Your task to perform on an android device: Open the phone app and click the voicemail tab. Image 0: 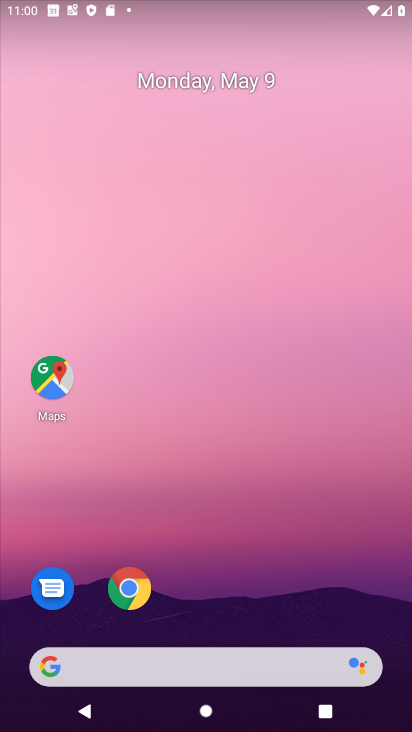
Step 0: drag from (222, 652) to (188, 0)
Your task to perform on an android device: Open the phone app and click the voicemail tab. Image 1: 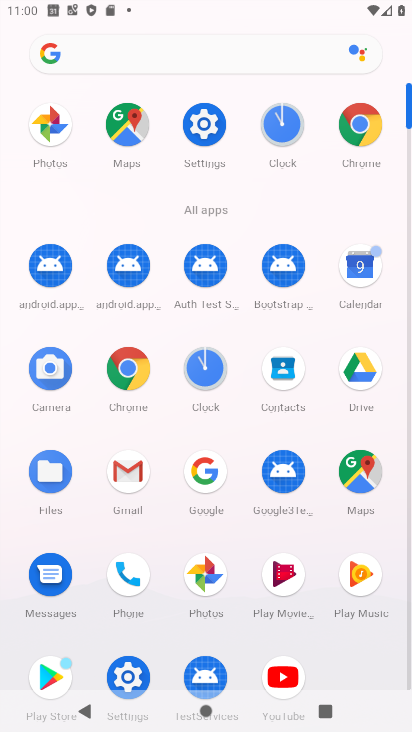
Step 1: click (133, 566)
Your task to perform on an android device: Open the phone app and click the voicemail tab. Image 2: 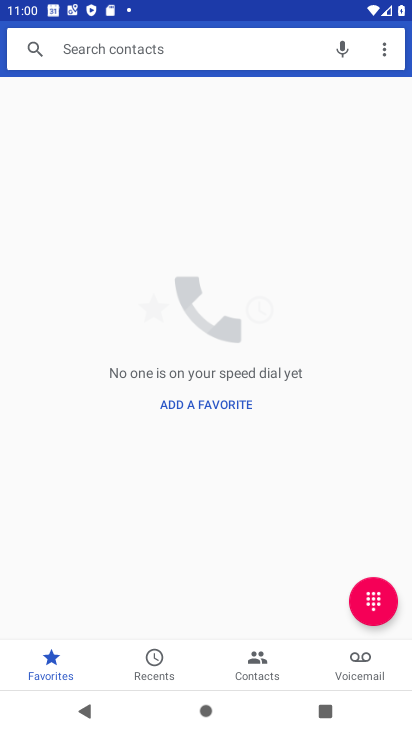
Step 2: click (379, 669)
Your task to perform on an android device: Open the phone app and click the voicemail tab. Image 3: 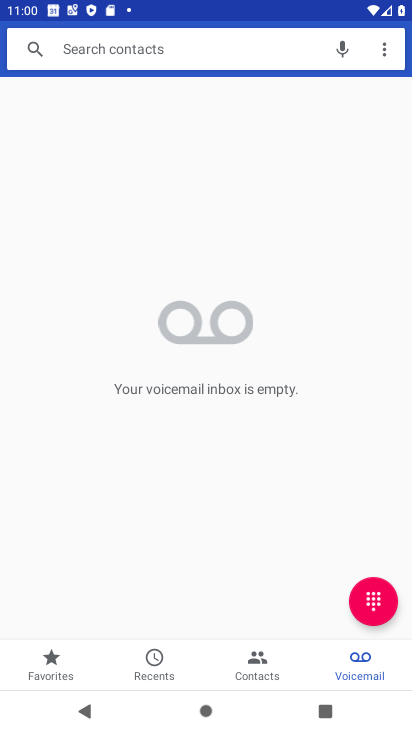
Step 3: task complete